Your task to perform on an android device: check storage Image 0: 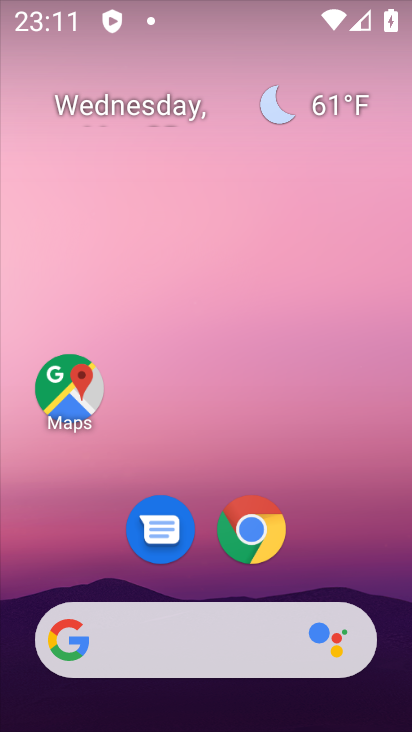
Step 0: drag from (382, 583) to (391, 259)
Your task to perform on an android device: check storage Image 1: 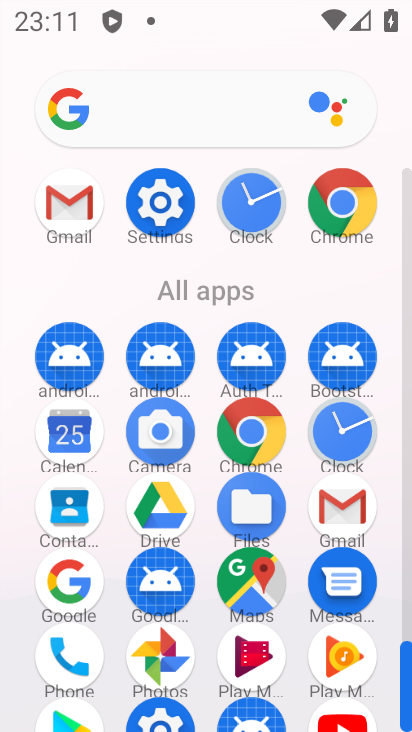
Step 1: click (165, 229)
Your task to perform on an android device: check storage Image 2: 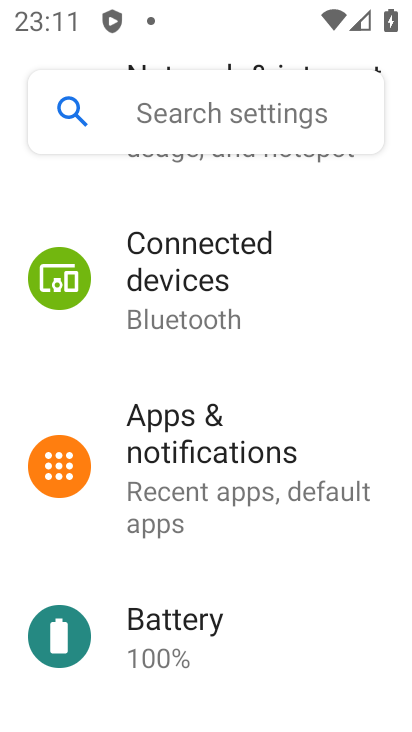
Step 2: drag from (361, 296) to (351, 403)
Your task to perform on an android device: check storage Image 3: 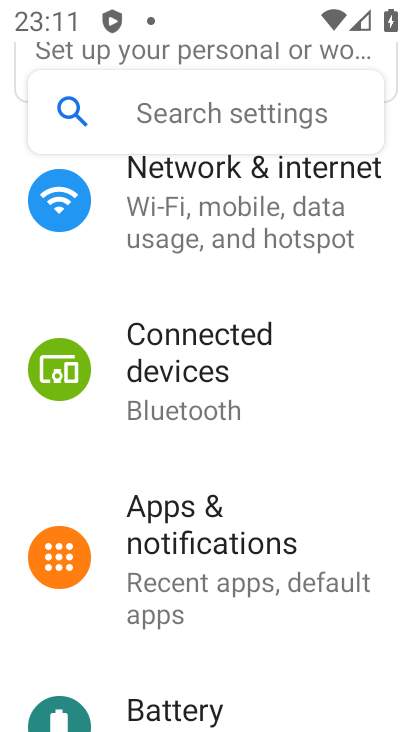
Step 3: drag from (383, 225) to (367, 398)
Your task to perform on an android device: check storage Image 4: 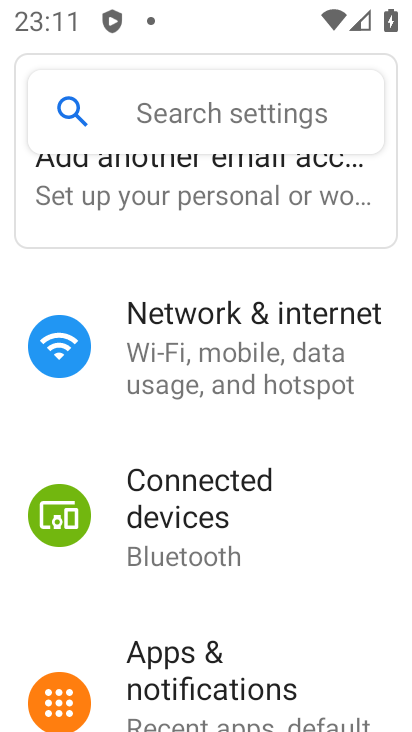
Step 4: drag from (372, 241) to (348, 455)
Your task to perform on an android device: check storage Image 5: 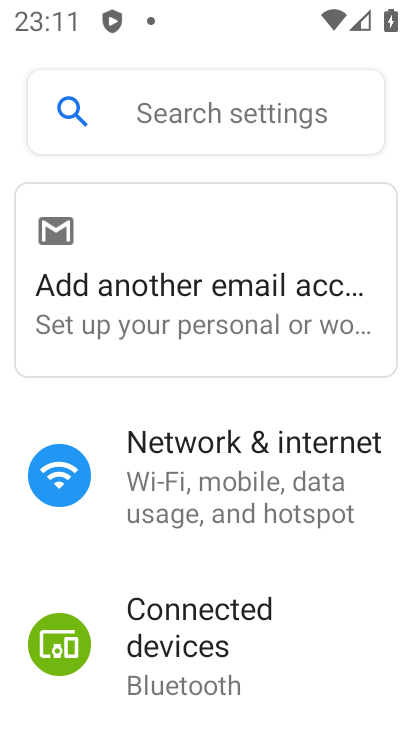
Step 5: drag from (343, 410) to (357, 271)
Your task to perform on an android device: check storage Image 6: 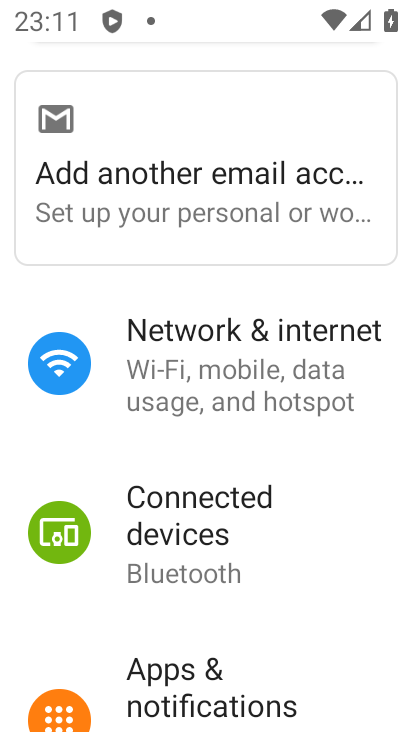
Step 6: drag from (355, 450) to (344, 303)
Your task to perform on an android device: check storage Image 7: 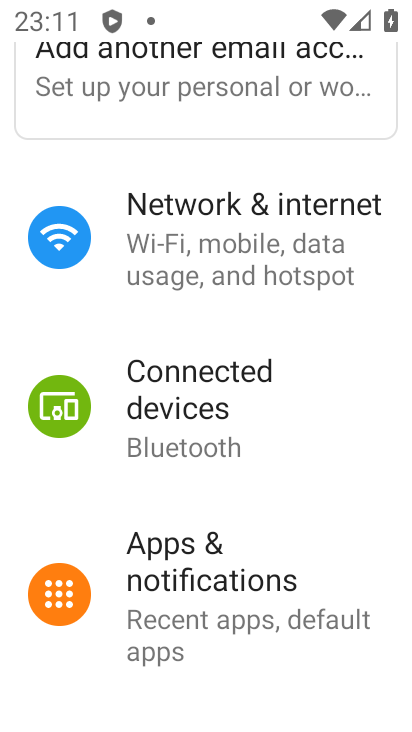
Step 7: drag from (330, 455) to (337, 312)
Your task to perform on an android device: check storage Image 8: 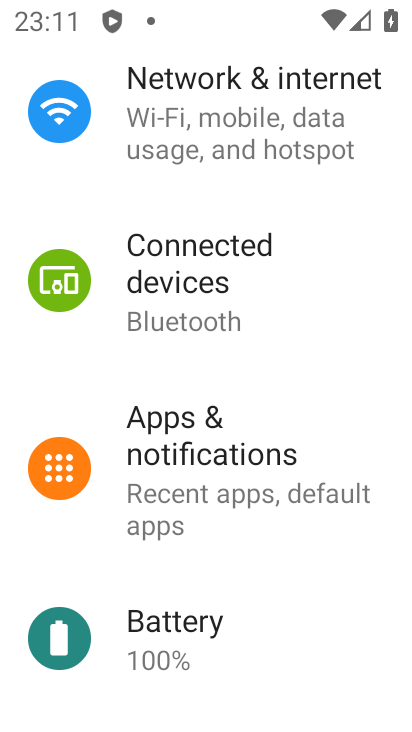
Step 8: drag from (350, 553) to (369, 427)
Your task to perform on an android device: check storage Image 9: 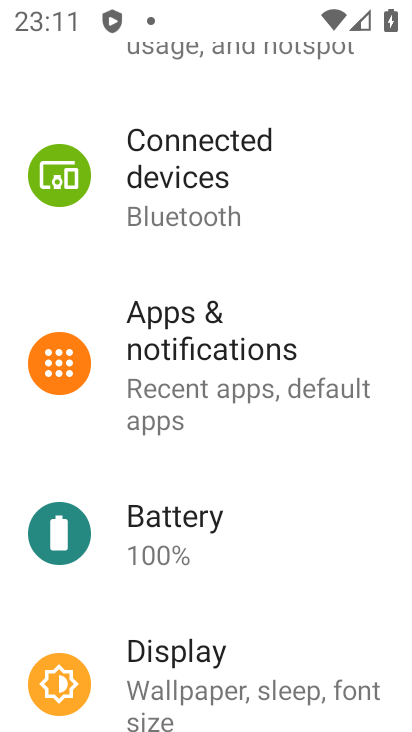
Step 9: drag from (349, 520) to (354, 438)
Your task to perform on an android device: check storage Image 10: 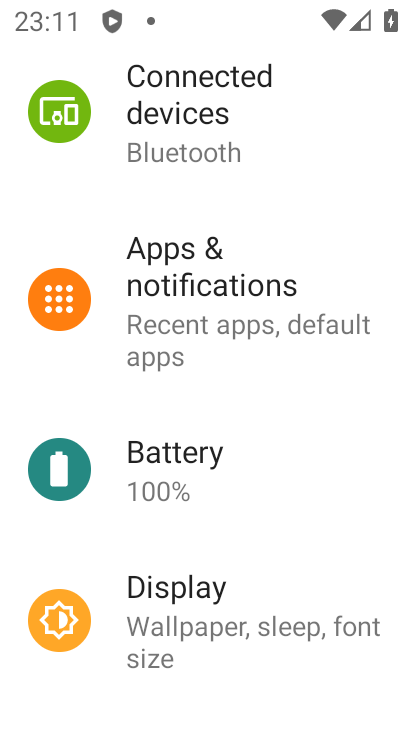
Step 10: drag from (343, 529) to (329, 421)
Your task to perform on an android device: check storage Image 11: 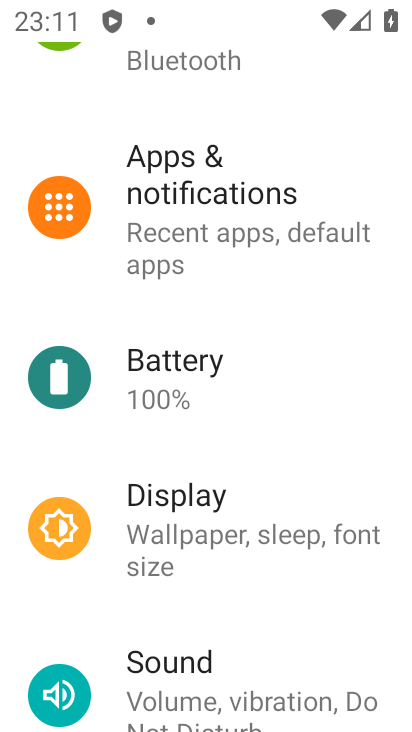
Step 11: drag from (319, 592) to (333, 484)
Your task to perform on an android device: check storage Image 12: 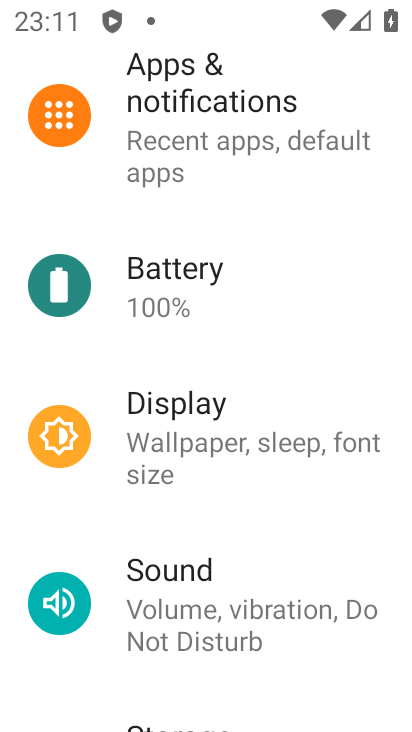
Step 12: drag from (350, 564) to (364, 437)
Your task to perform on an android device: check storage Image 13: 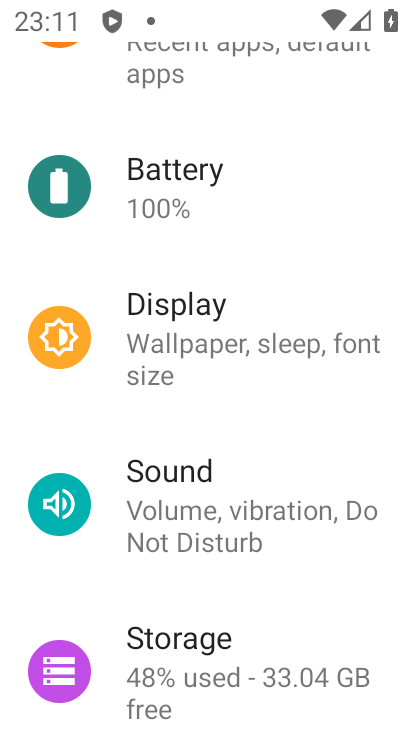
Step 13: drag from (370, 598) to (394, 461)
Your task to perform on an android device: check storage Image 14: 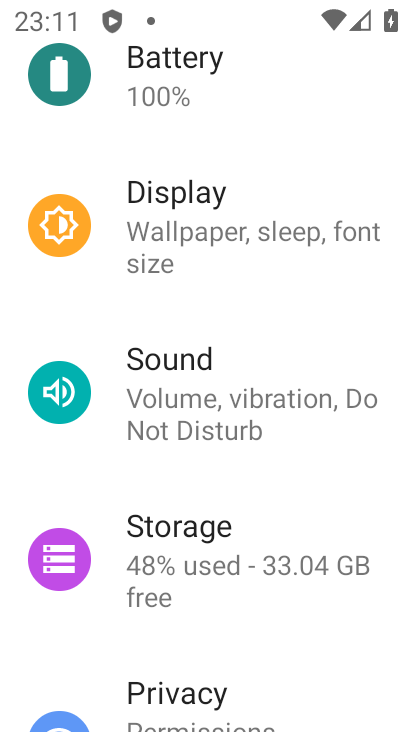
Step 14: drag from (367, 606) to (371, 460)
Your task to perform on an android device: check storage Image 15: 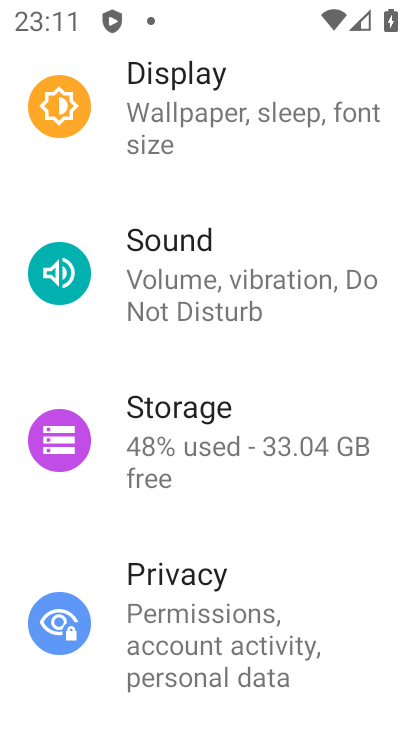
Step 15: drag from (350, 549) to (368, 425)
Your task to perform on an android device: check storage Image 16: 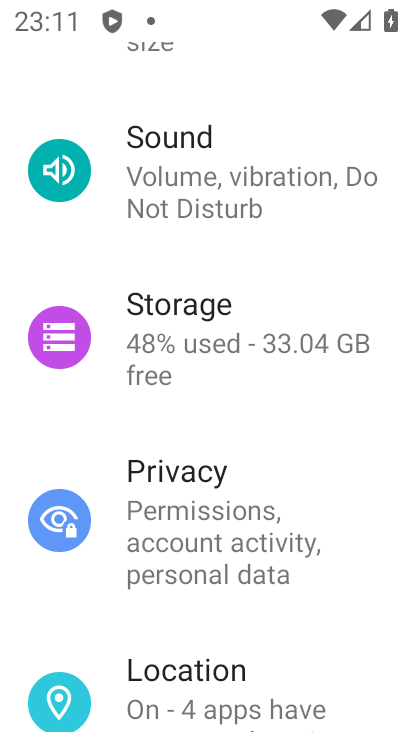
Step 16: click (287, 343)
Your task to perform on an android device: check storage Image 17: 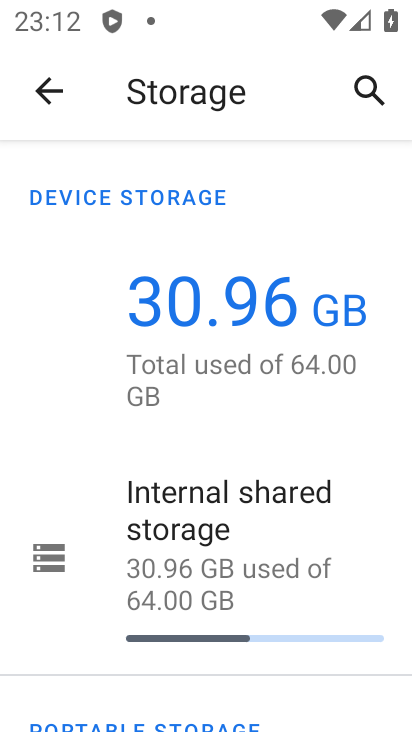
Step 17: task complete